Your task to perform on an android device: Go to calendar. Show me events next week Image 0: 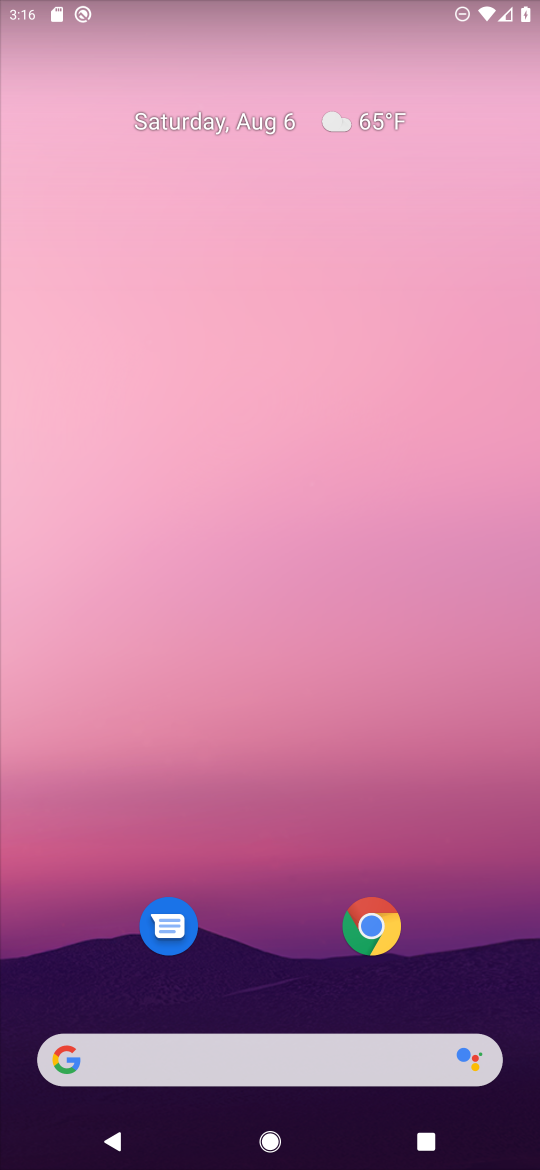
Step 0: click (282, 297)
Your task to perform on an android device: Go to calendar. Show me events next week Image 1: 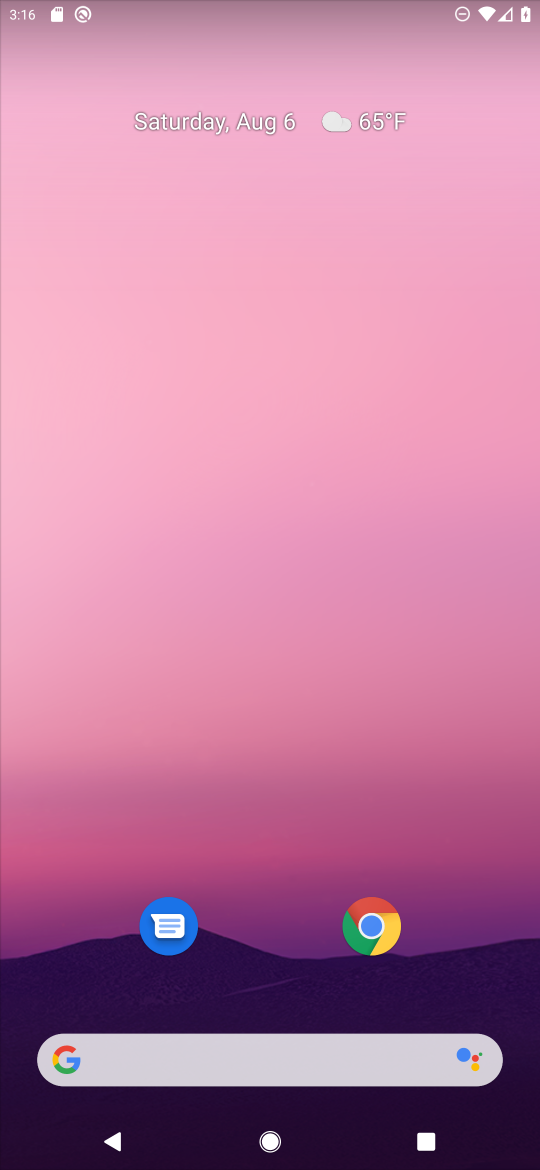
Step 1: drag from (254, 886) to (260, 257)
Your task to perform on an android device: Go to calendar. Show me events next week Image 2: 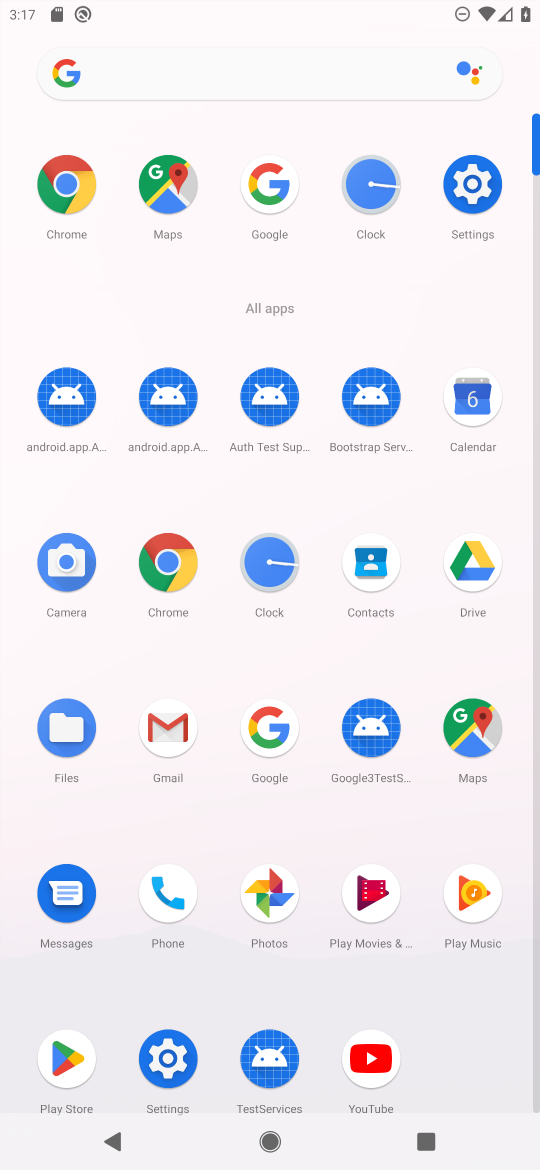
Step 2: click (463, 421)
Your task to perform on an android device: Go to calendar. Show me events next week Image 3: 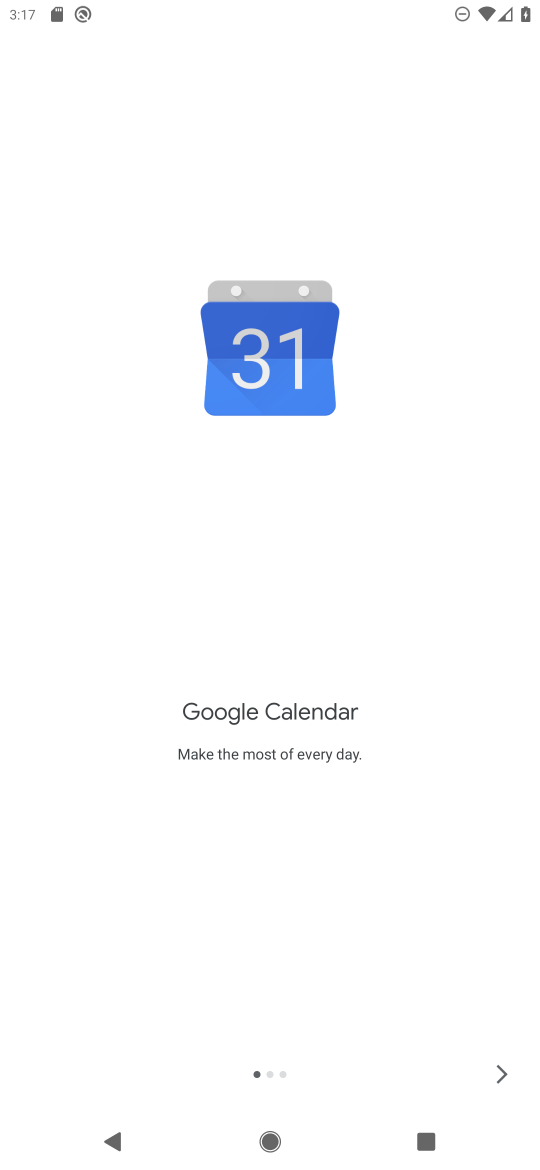
Step 3: click (497, 1071)
Your task to perform on an android device: Go to calendar. Show me events next week Image 4: 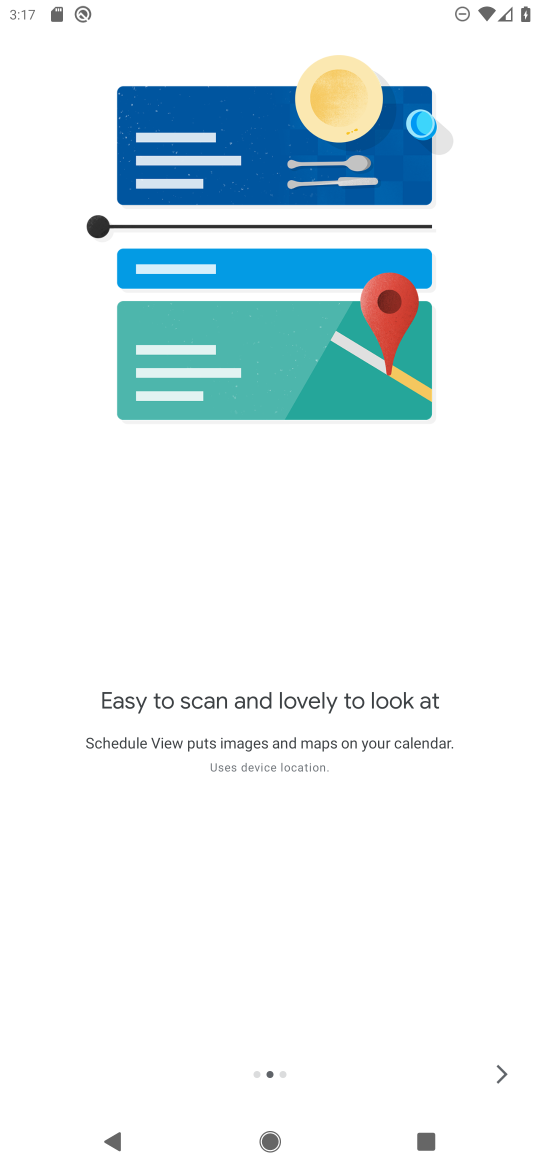
Step 4: click (490, 1073)
Your task to perform on an android device: Go to calendar. Show me events next week Image 5: 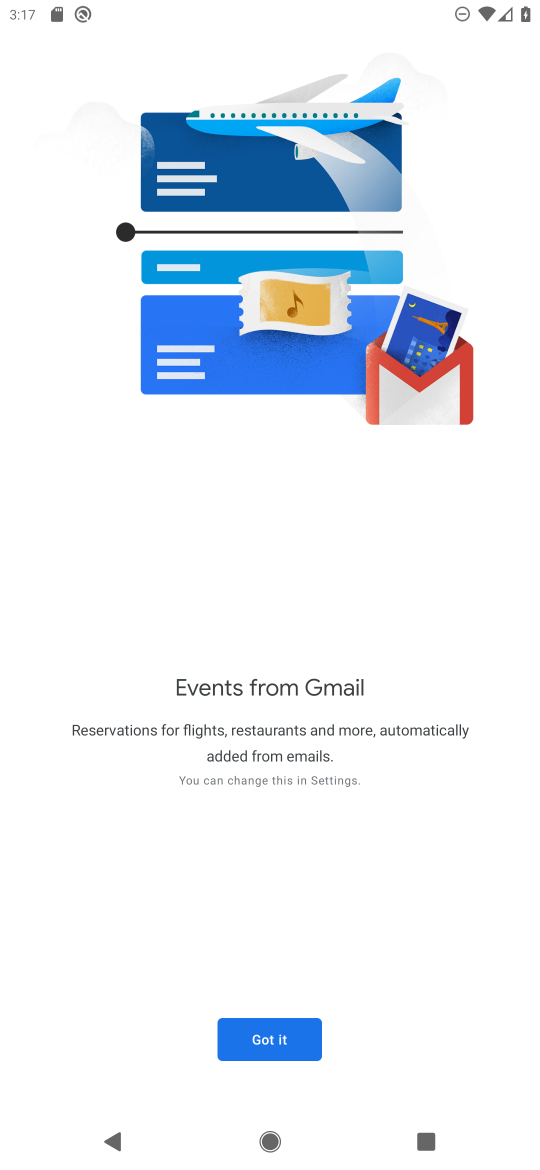
Step 5: click (289, 1044)
Your task to perform on an android device: Go to calendar. Show me events next week Image 6: 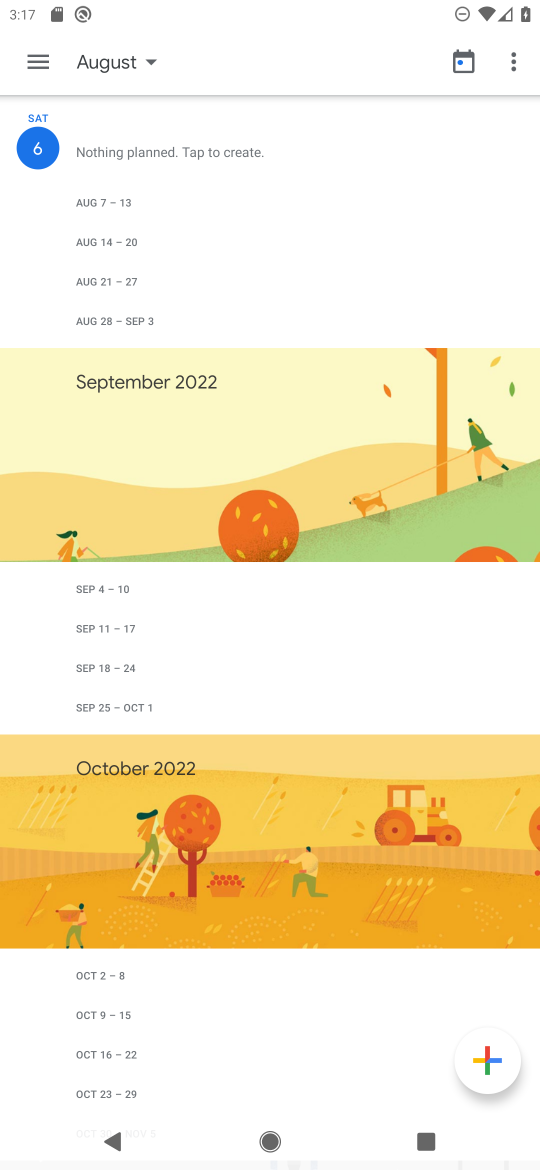
Step 6: click (131, 68)
Your task to perform on an android device: Go to calendar. Show me events next week Image 7: 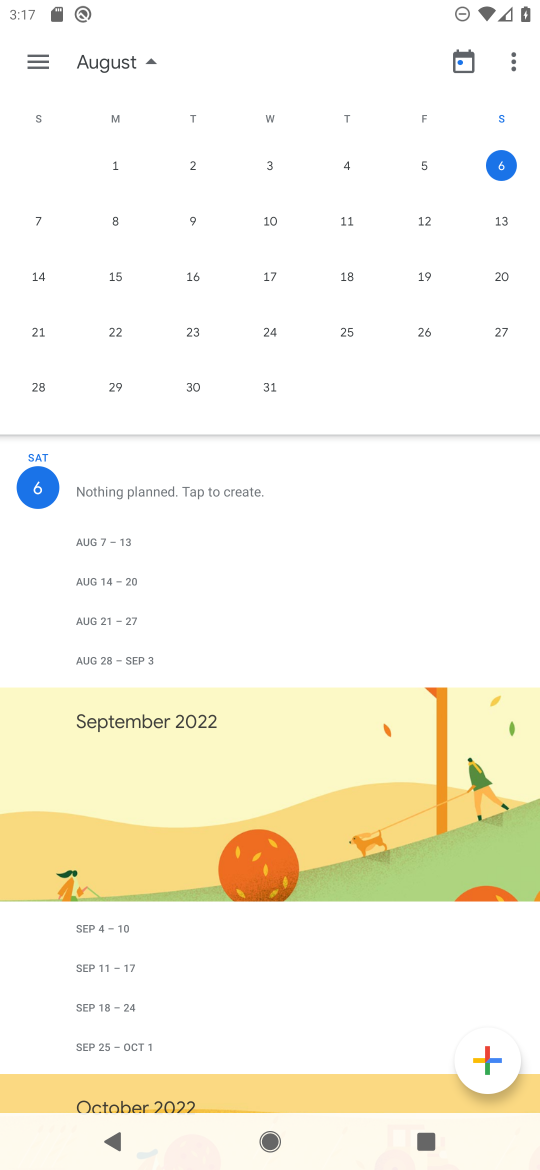
Step 7: click (46, 217)
Your task to perform on an android device: Go to calendar. Show me events next week Image 8: 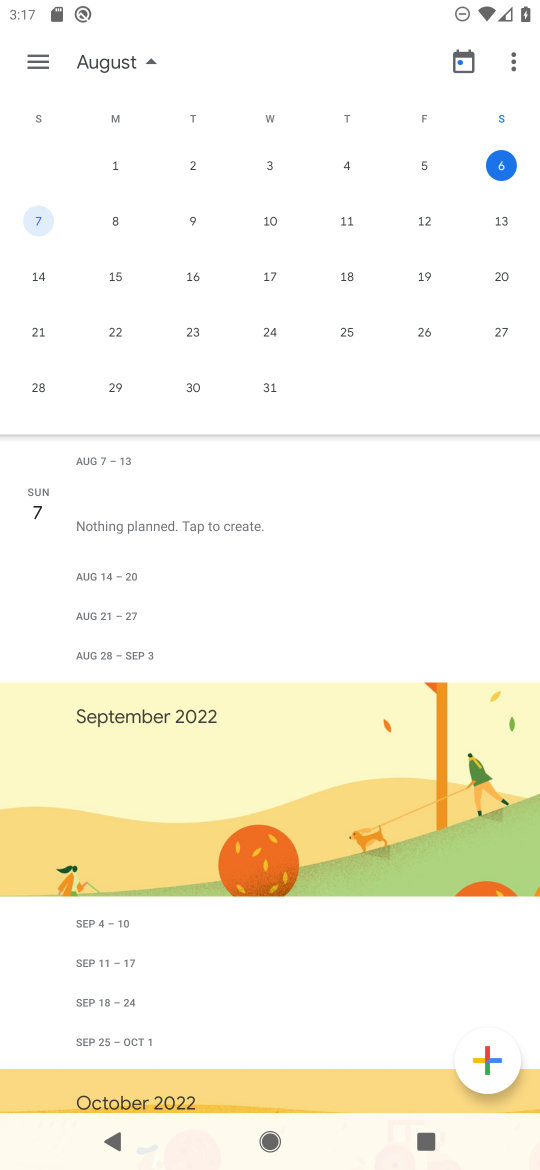
Step 8: task complete